Your task to perform on an android device: change the upload size in google photos Image 0: 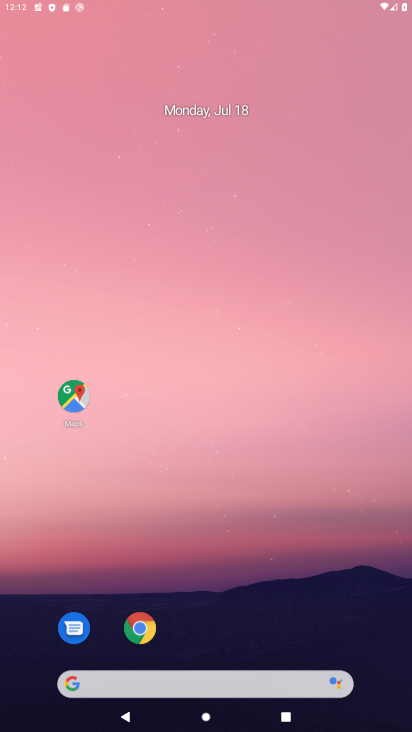
Step 0: click (234, 291)
Your task to perform on an android device: change the upload size in google photos Image 1: 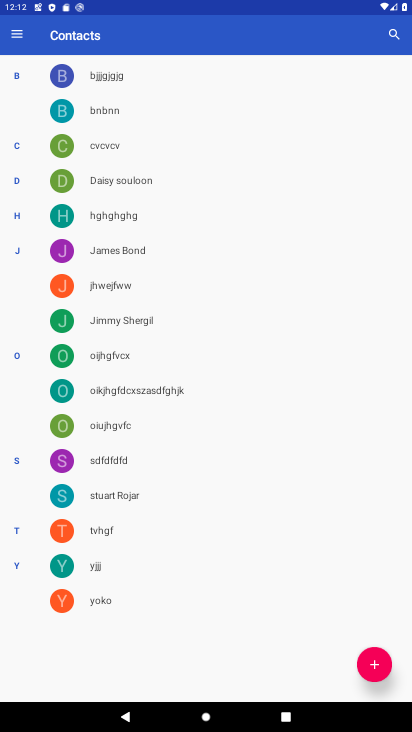
Step 1: press home button
Your task to perform on an android device: change the upload size in google photos Image 2: 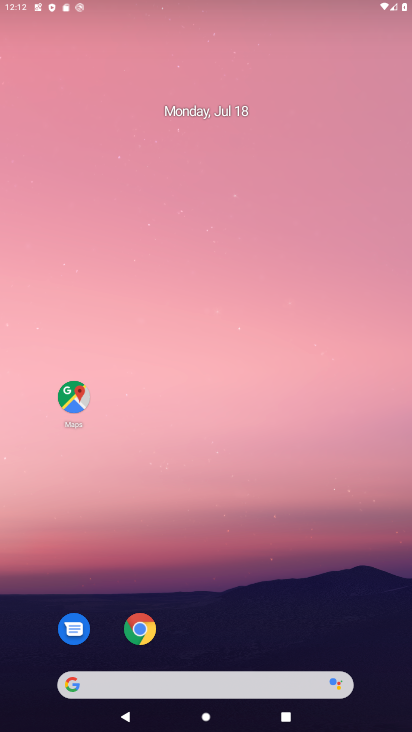
Step 2: drag from (228, 644) to (214, 221)
Your task to perform on an android device: change the upload size in google photos Image 3: 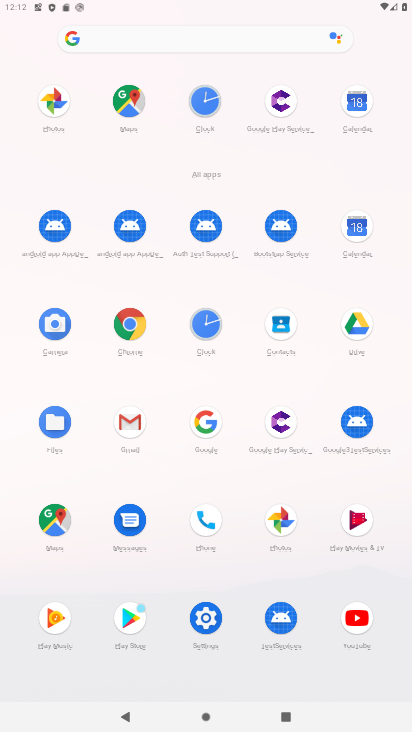
Step 3: click (46, 91)
Your task to perform on an android device: change the upload size in google photos Image 4: 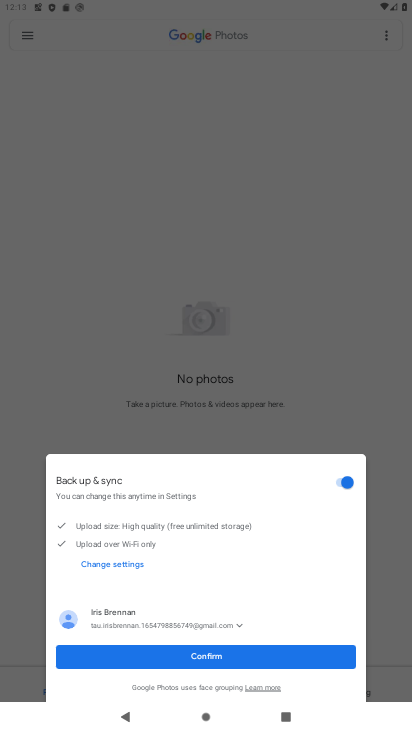
Step 4: click (275, 648)
Your task to perform on an android device: change the upload size in google photos Image 5: 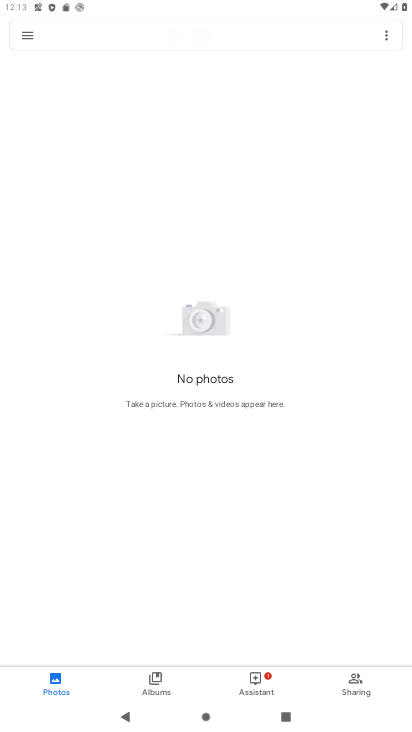
Step 5: click (27, 32)
Your task to perform on an android device: change the upload size in google photos Image 6: 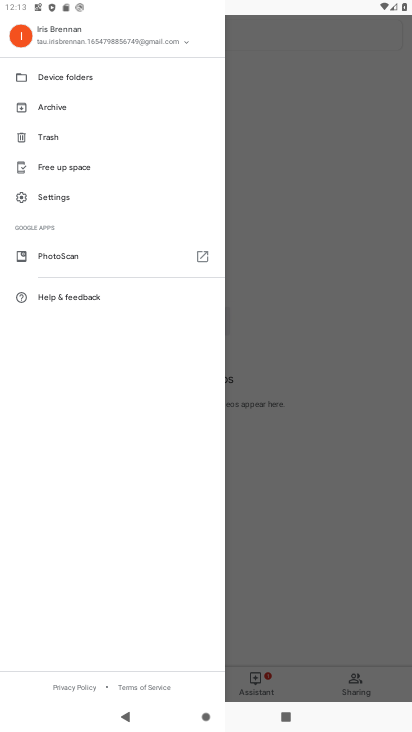
Step 6: click (66, 201)
Your task to perform on an android device: change the upload size in google photos Image 7: 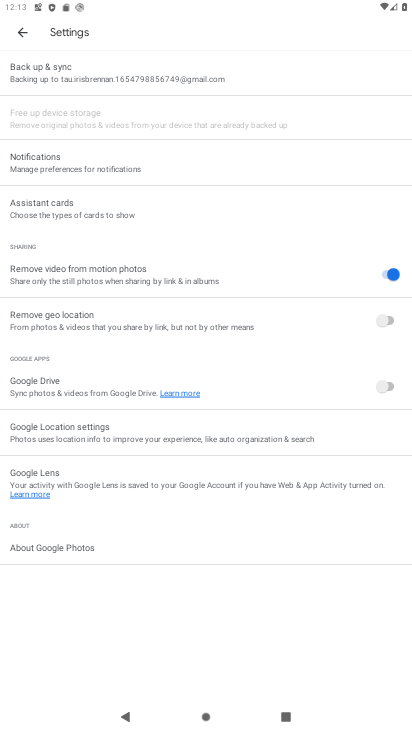
Step 7: click (58, 75)
Your task to perform on an android device: change the upload size in google photos Image 8: 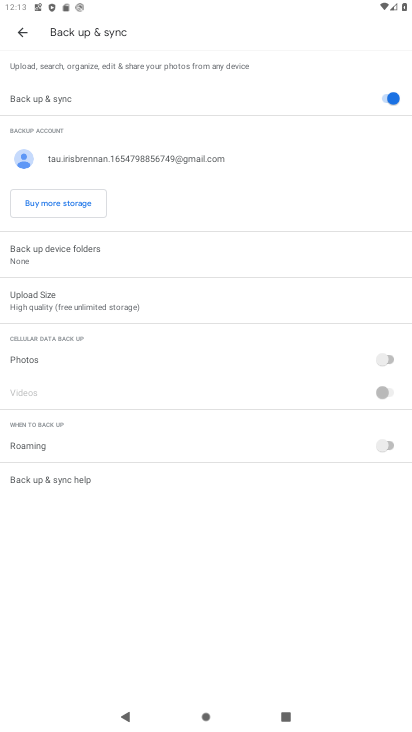
Step 8: click (68, 297)
Your task to perform on an android device: change the upload size in google photos Image 9: 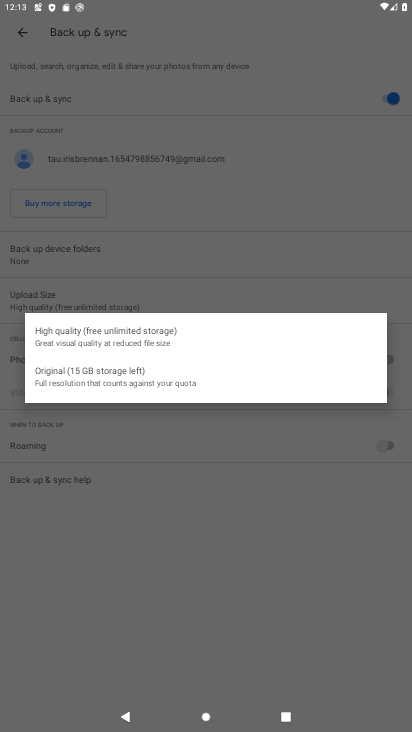
Step 9: click (106, 374)
Your task to perform on an android device: change the upload size in google photos Image 10: 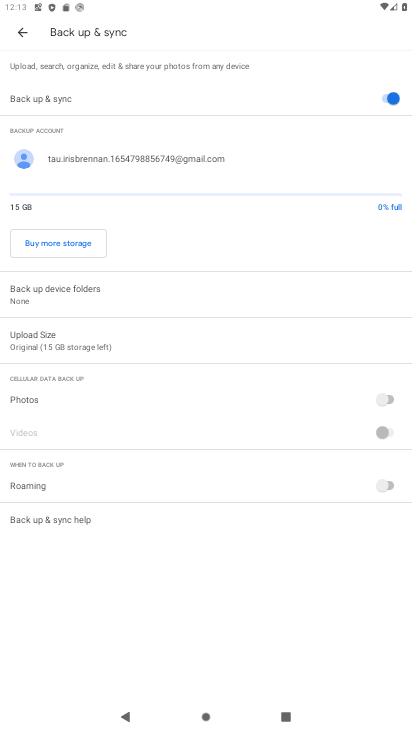
Step 10: task complete